Your task to perform on an android device: What's on my calendar tomorrow? Image 0: 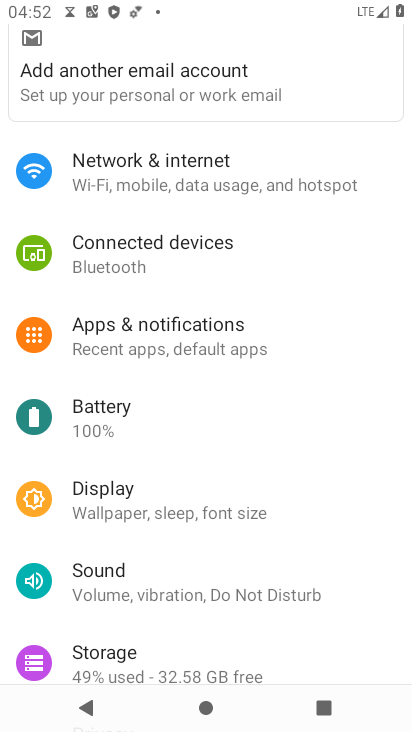
Step 0: press back button
Your task to perform on an android device: What's on my calendar tomorrow? Image 1: 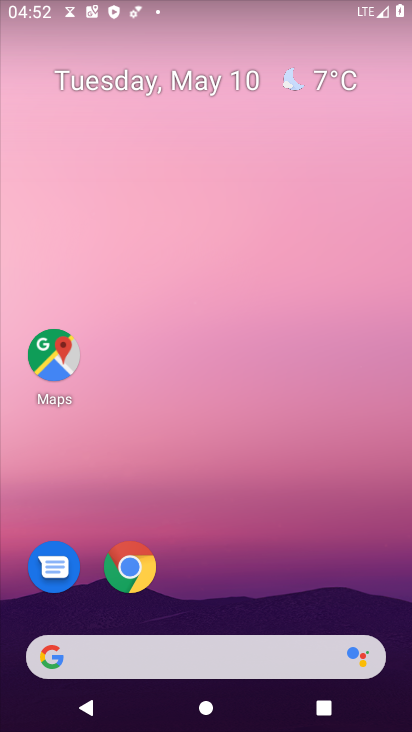
Step 1: drag from (216, 577) to (223, 60)
Your task to perform on an android device: What's on my calendar tomorrow? Image 2: 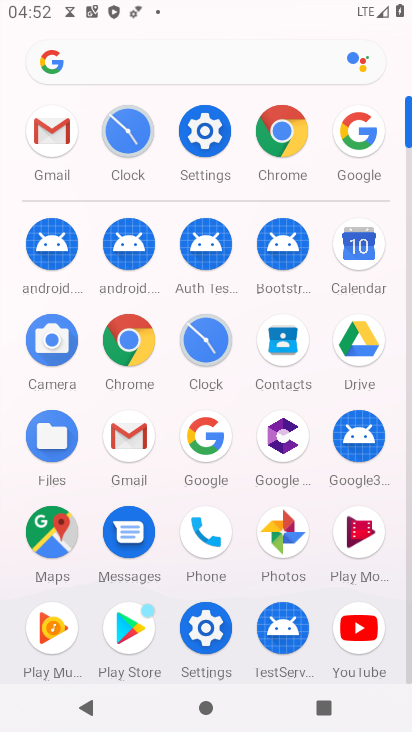
Step 2: click (357, 247)
Your task to perform on an android device: What's on my calendar tomorrow? Image 3: 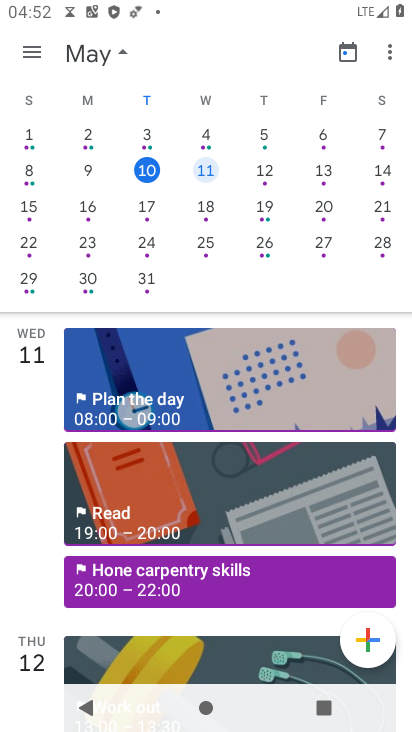
Step 3: click (210, 174)
Your task to perform on an android device: What's on my calendar tomorrow? Image 4: 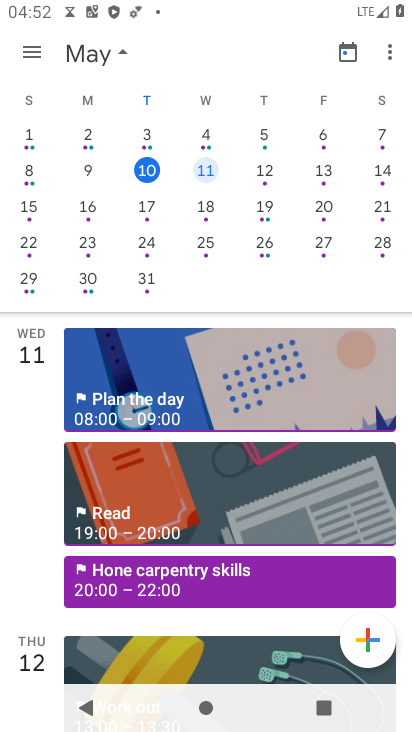
Step 4: click (37, 39)
Your task to perform on an android device: What's on my calendar tomorrow? Image 5: 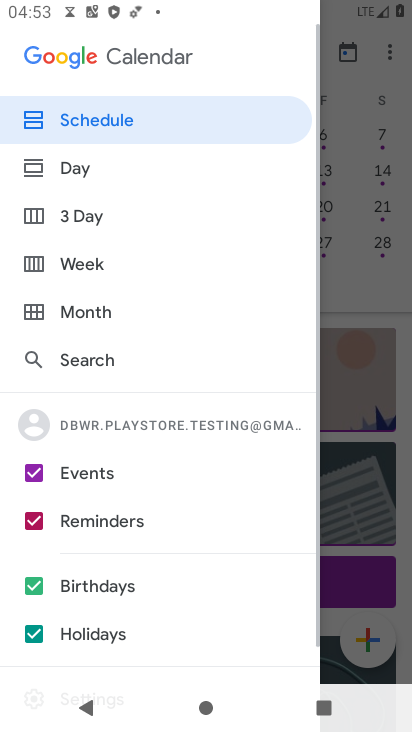
Step 5: click (71, 115)
Your task to perform on an android device: What's on my calendar tomorrow? Image 6: 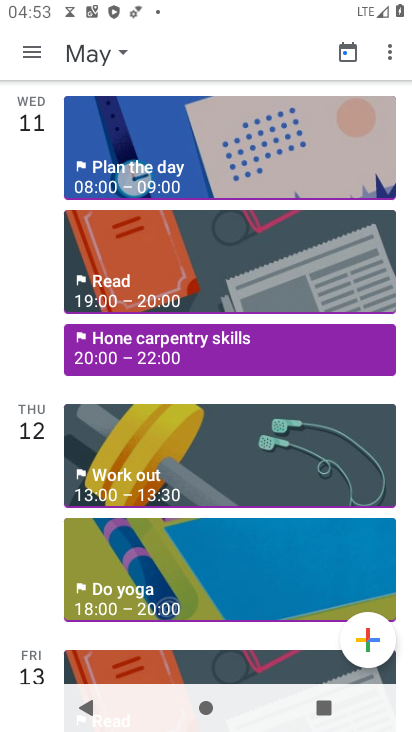
Step 6: task complete